Your task to perform on an android device: clear all cookies in the chrome app Image 0: 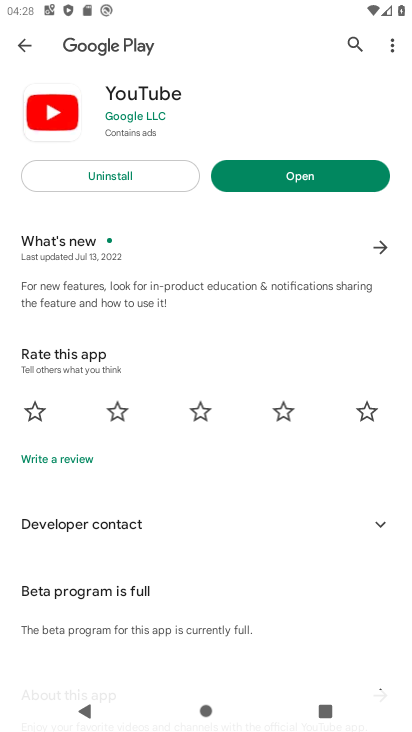
Step 0: press home button
Your task to perform on an android device: clear all cookies in the chrome app Image 1: 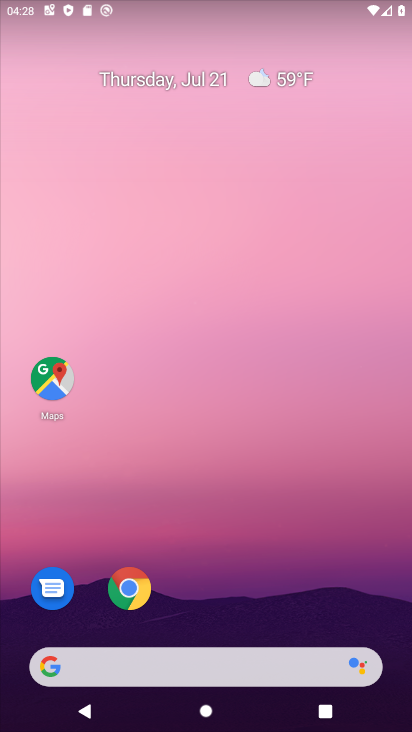
Step 1: click (134, 594)
Your task to perform on an android device: clear all cookies in the chrome app Image 2: 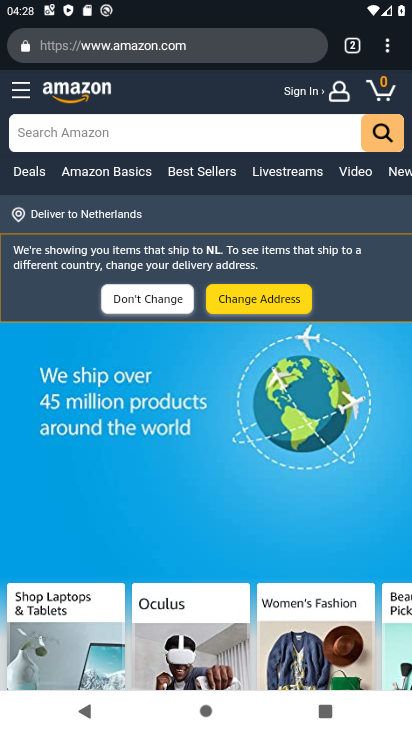
Step 2: click (389, 49)
Your task to perform on an android device: clear all cookies in the chrome app Image 3: 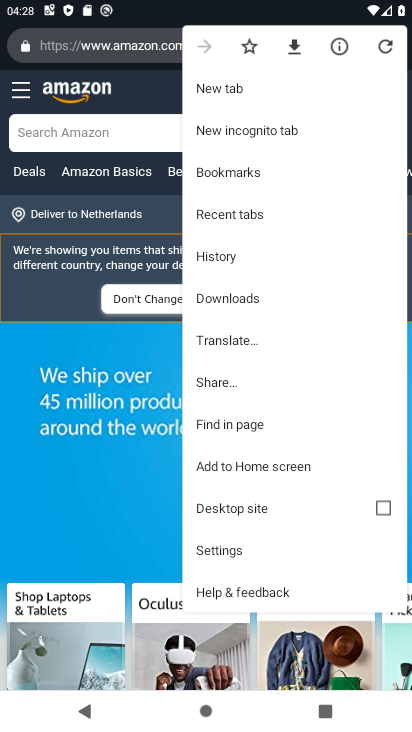
Step 3: click (215, 265)
Your task to perform on an android device: clear all cookies in the chrome app Image 4: 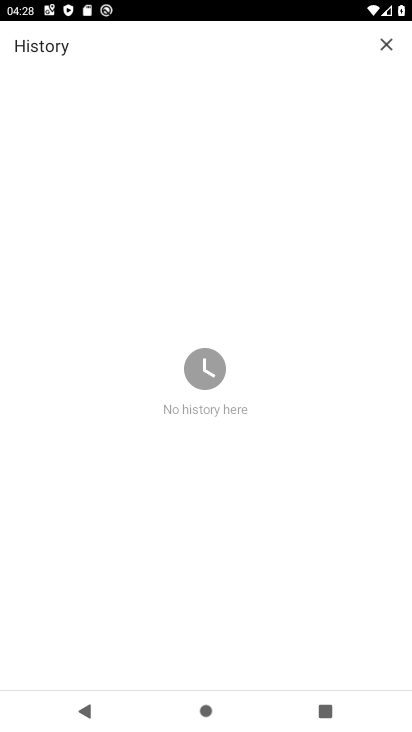
Step 4: task complete